Your task to perform on an android device: add a contact in the contacts app Image 0: 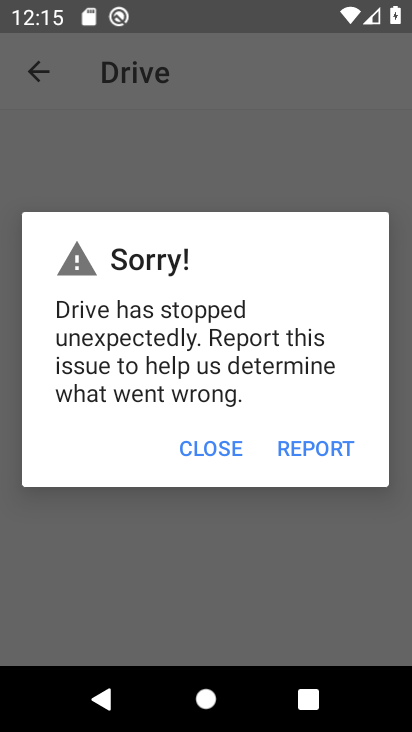
Step 0: press home button
Your task to perform on an android device: add a contact in the contacts app Image 1: 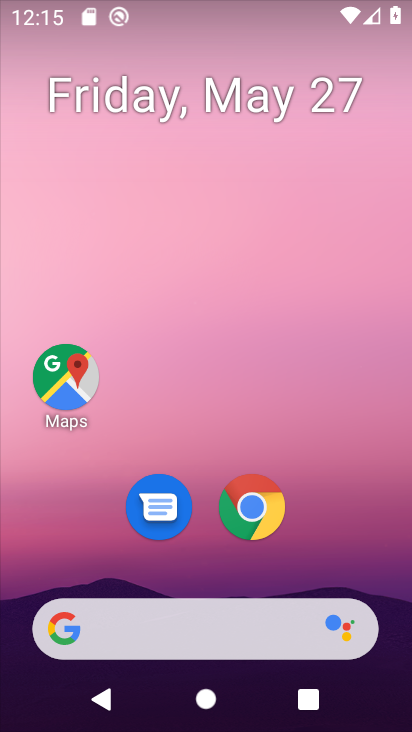
Step 1: drag from (47, 593) to (233, 30)
Your task to perform on an android device: add a contact in the contacts app Image 2: 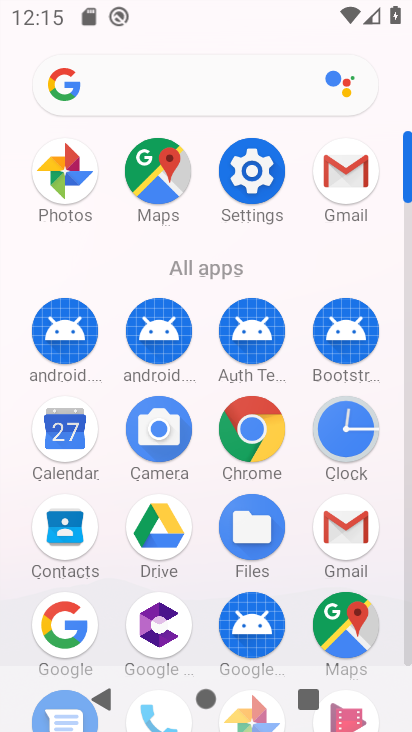
Step 2: click (67, 524)
Your task to perform on an android device: add a contact in the contacts app Image 3: 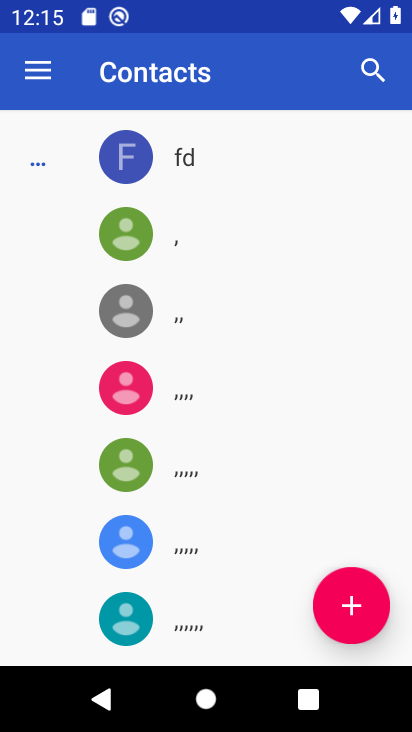
Step 3: click (348, 608)
Your task to perform on an android device: add a contact in the contacts app Image 4: 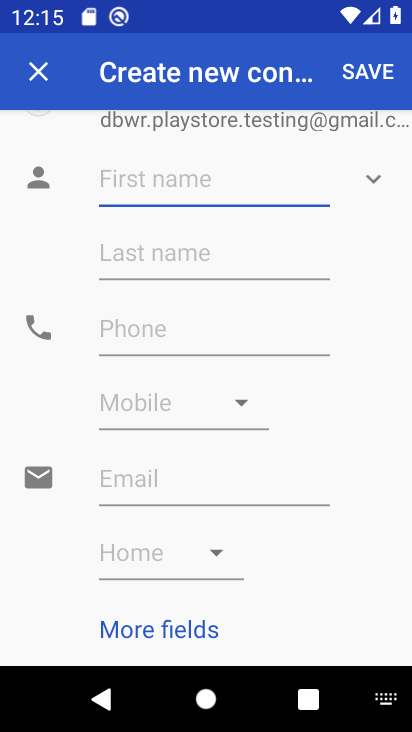
Step 4: type "ikikiki"
Your task to perform on an android device: add a contact in the contacts app Image 5: 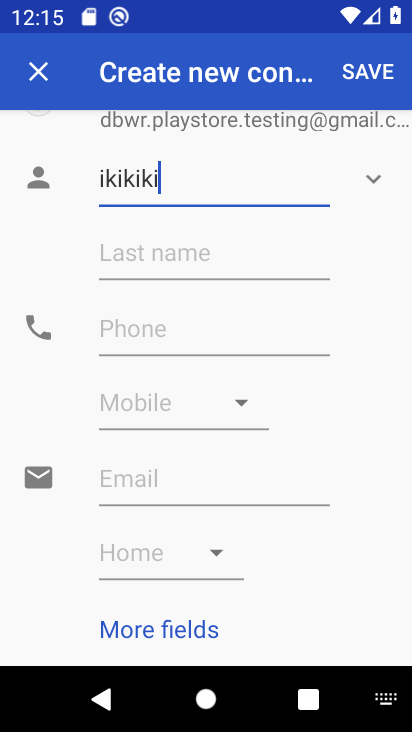
Step 5: click (175, 342)
Your task to perform on an android device: add a contact in the contacts app Image 6: 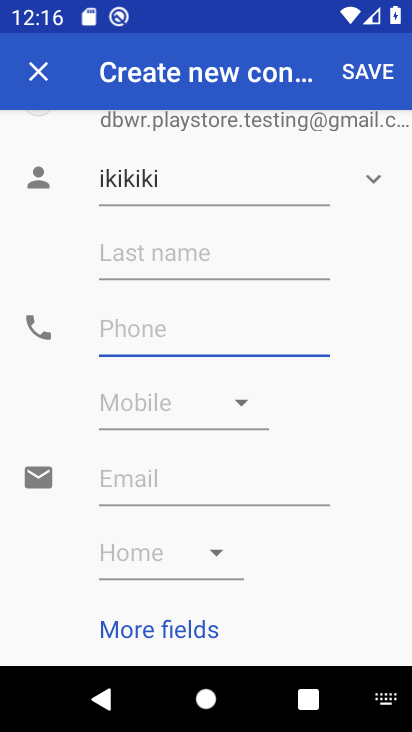
Step 6: type "565656776"
Your task to perform on an android device: add a contact in the contacts app Image 7: 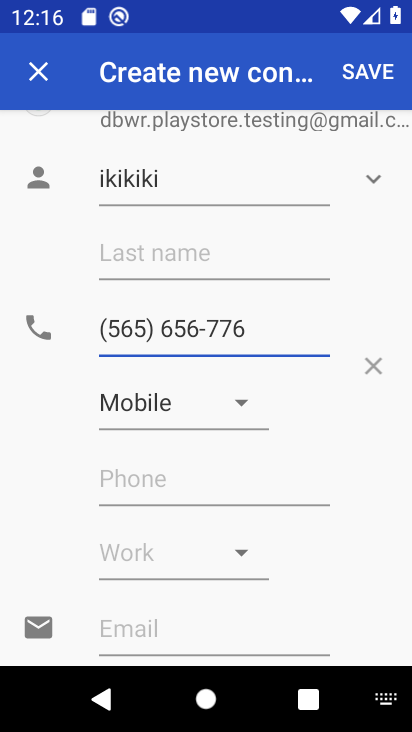
Step 7: click (365, 63)
Your task to perform on an android device: add a contact in the contacts app Image 8: 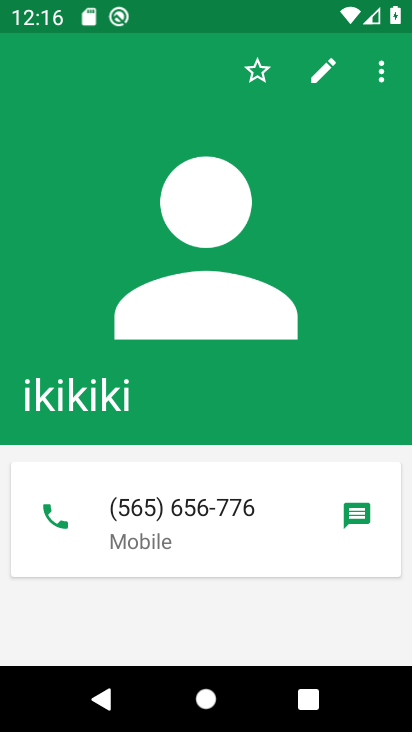
Step 8: task complete